Your task to perform on an android device: show emergency info Image 0: 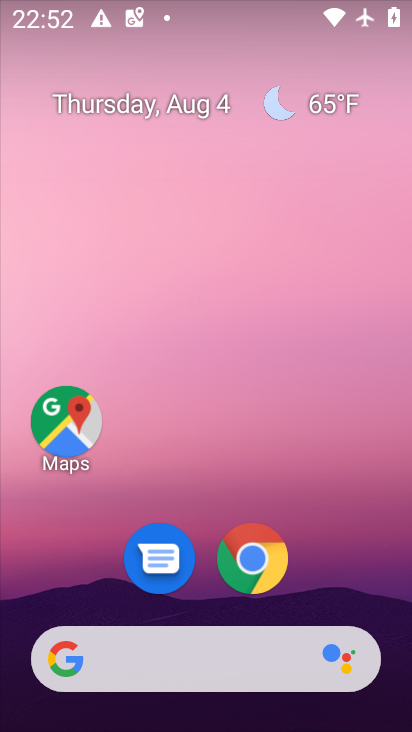
Step 0: drag from (346, 496) to (266, 13)
Your task to perform on an android device: show emergency info Image 1: 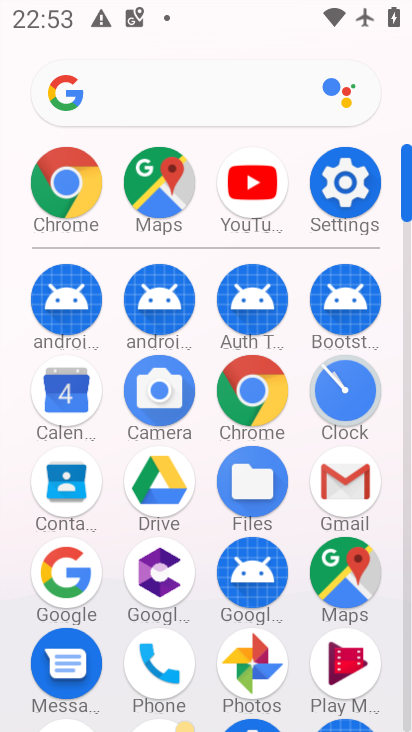
Step 1: drag from (301, 601) to (314, 225)
Your task to perform on an android device: show emergency info Image 2: 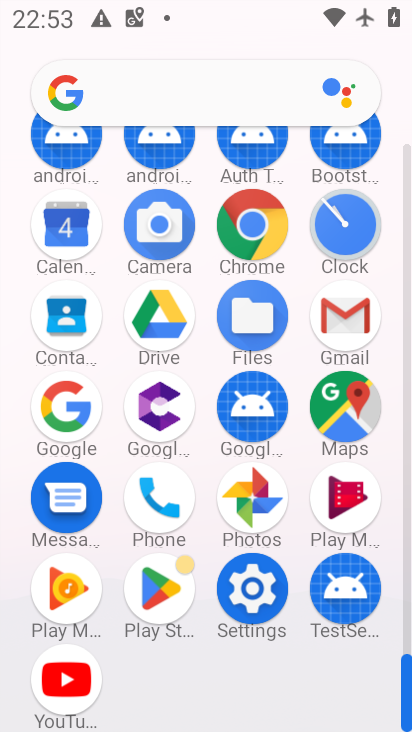
Step 2: click (253, 584)
Your task to perform on an android device: show emergency info Image 3: 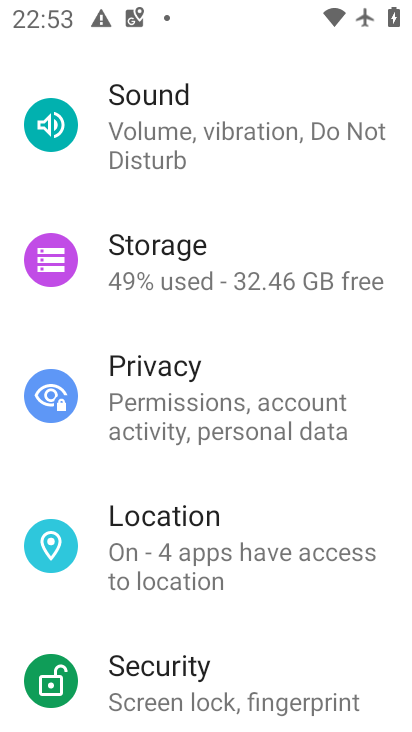
Step 3: drag from (274, 561) to (346, 145)
Your task to perform on an android device: show emergency info Image 4: 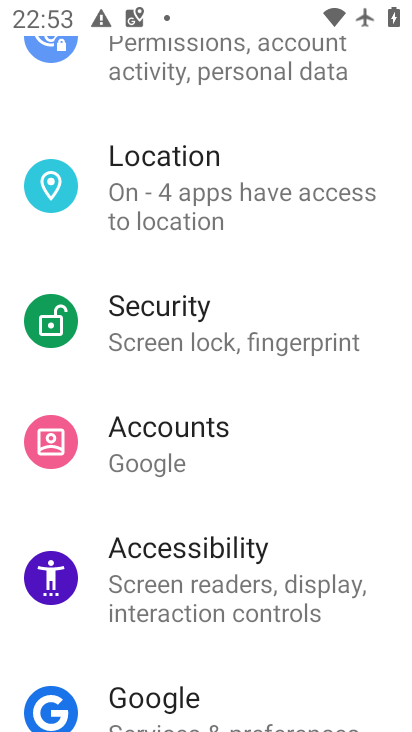
Step 4: drag from (300, 665) to (294, 133)
Your task to perform on an android device: show emergency info Image 5: 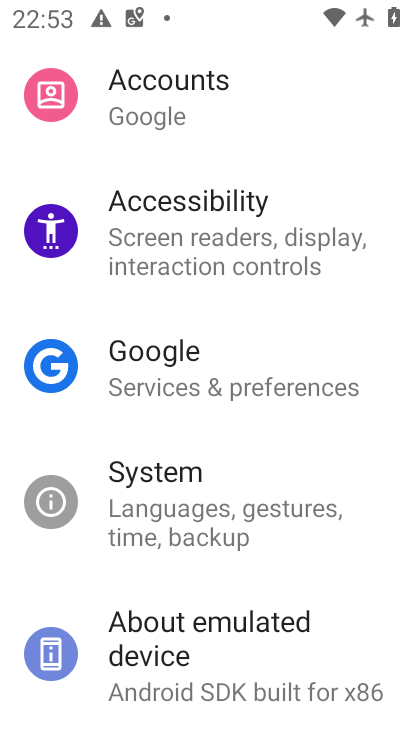
Step 5: click (195, 632)
Your task to perform on an android device: show emergency info Image 6: 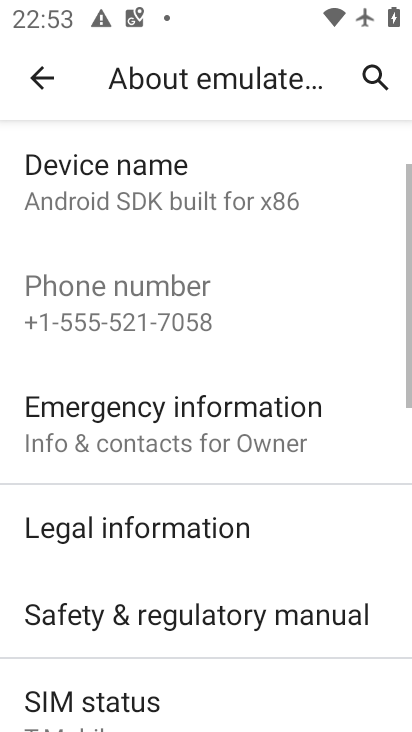
Step 6: click (208, 417)
Your task to perform on an android device: show emergency info Image 7: 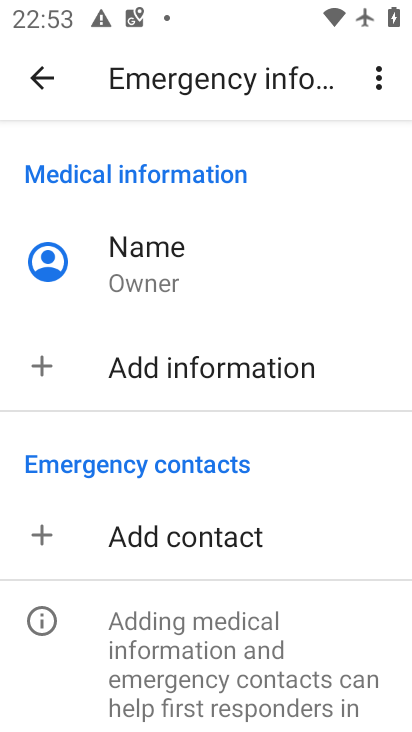
Step 7: task complete